Your task to perform on an android device: Is it going to rain this weekend? Image 0: 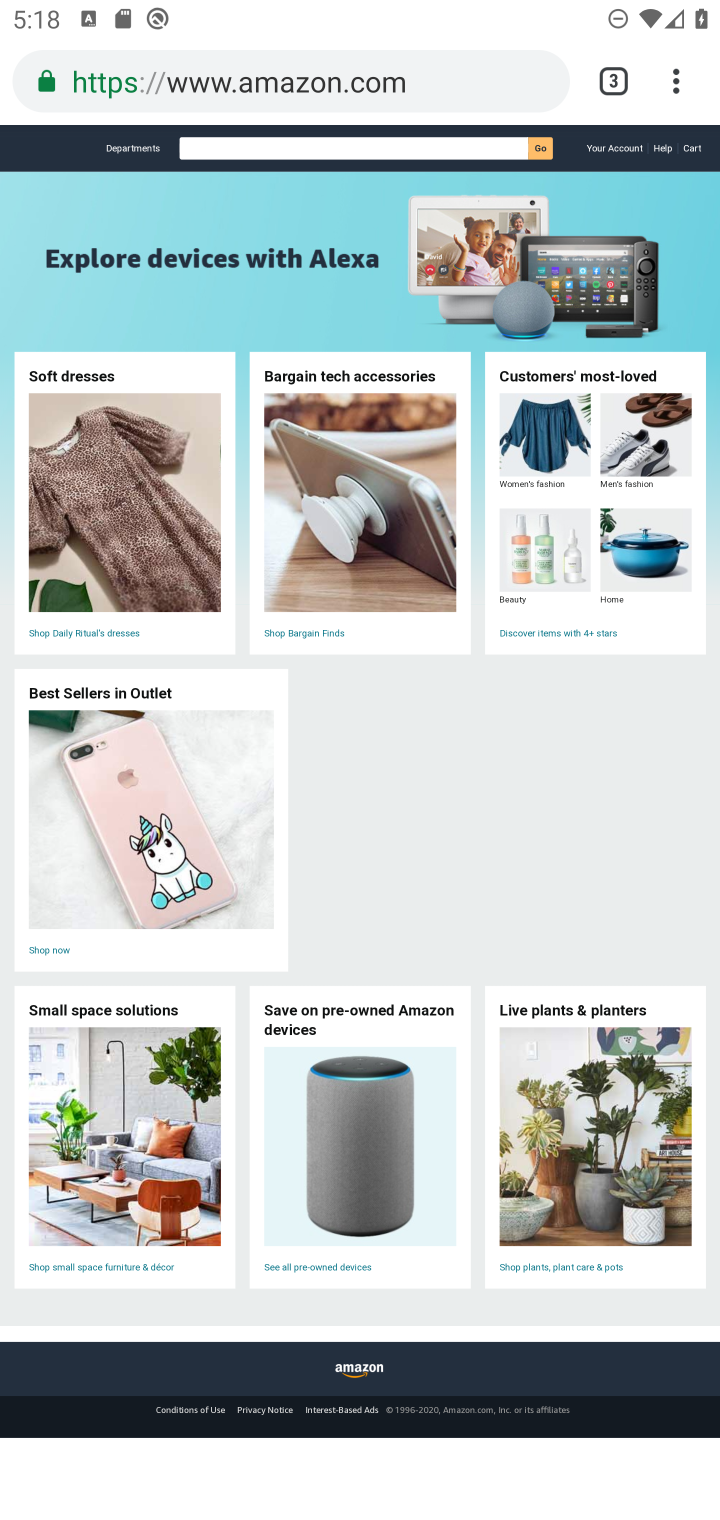
Step 0: press home button
Your task to perform on an android device: Is it going to rain this weekend? Image 1: 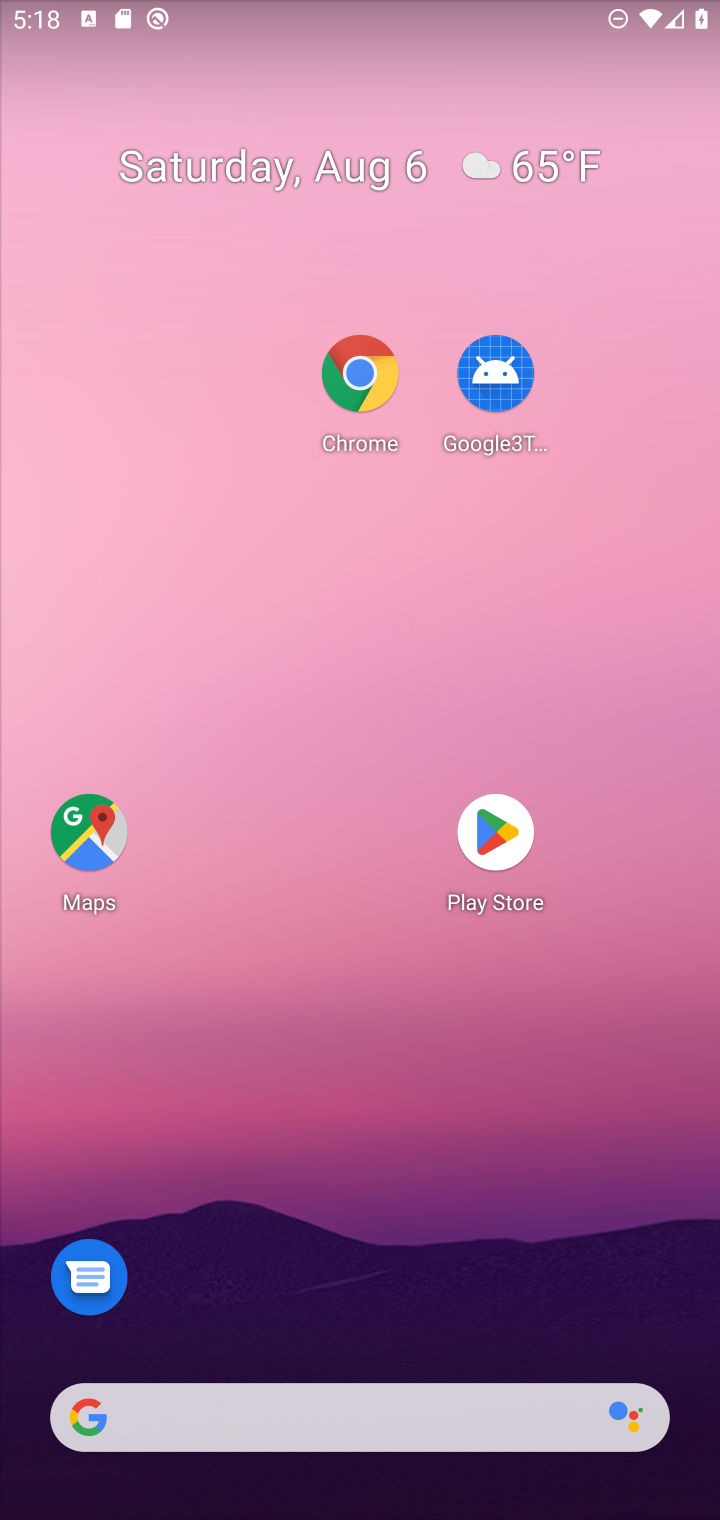
Step 1: drag from (503, 1425) to (685, 120)
Your task to perform on an android device: Is it going to rain this weekend? Image 2: 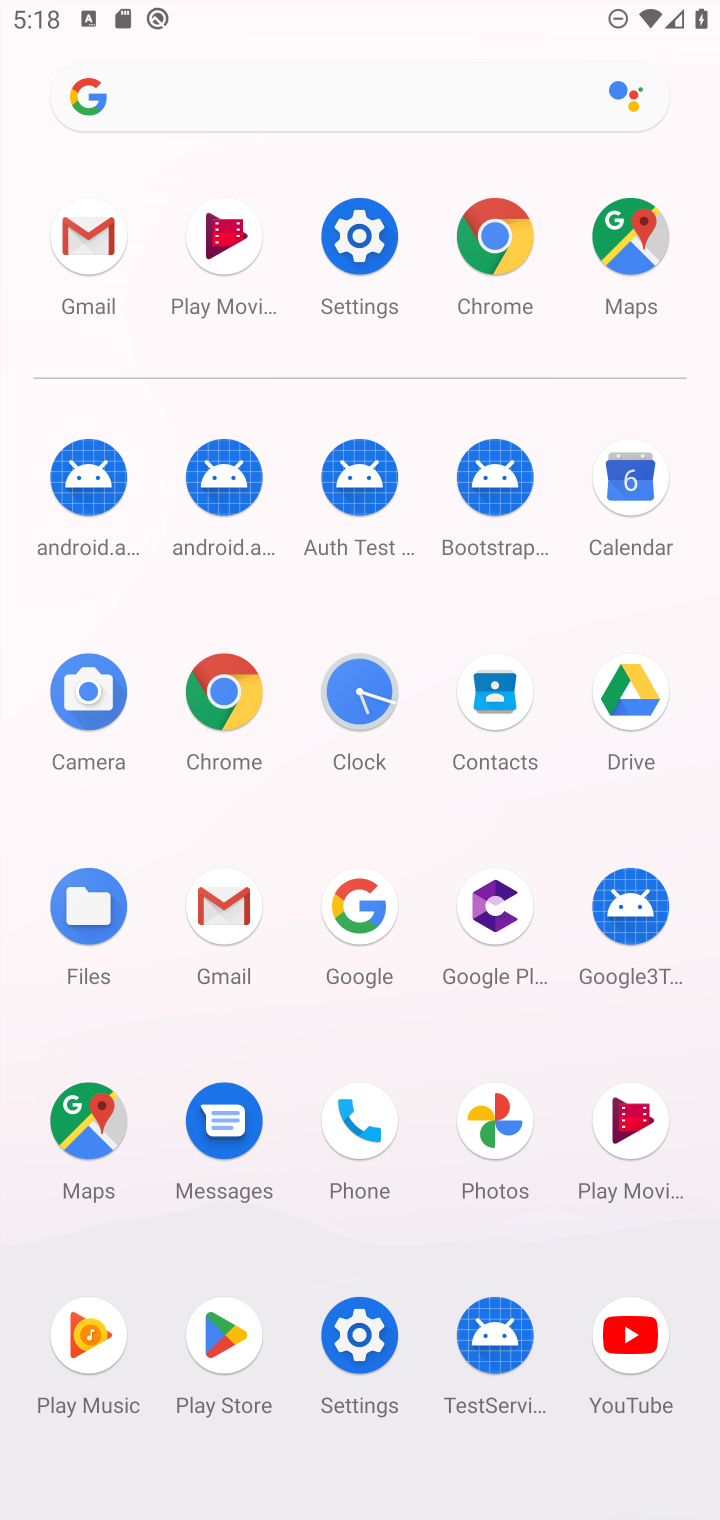
Step 2: click (215, 681)
Your task to perform on an android device: Is it going to rain this weekend? Image 3: 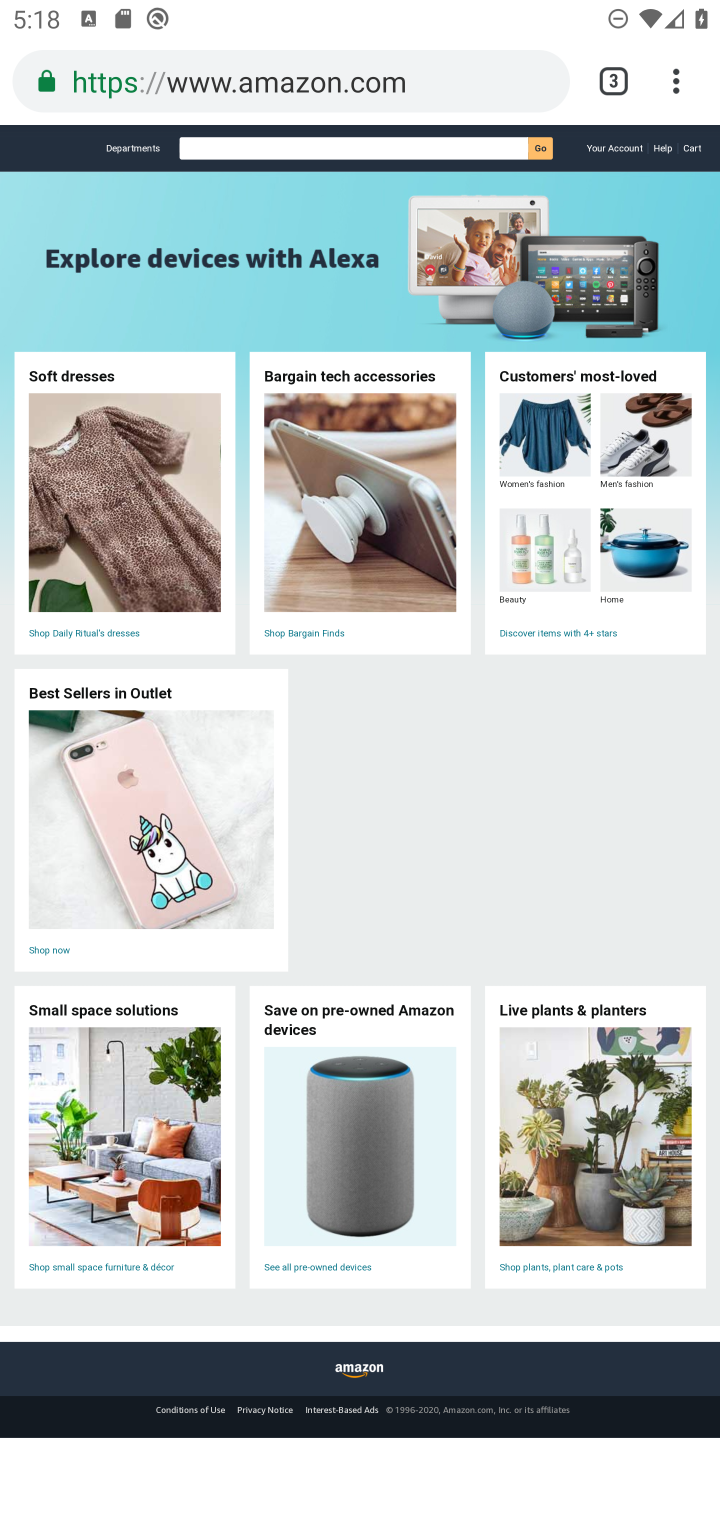
Step 3: click (395, 101)
Your task to perform on an android device: Is it going to rain this weekend? Image 4: 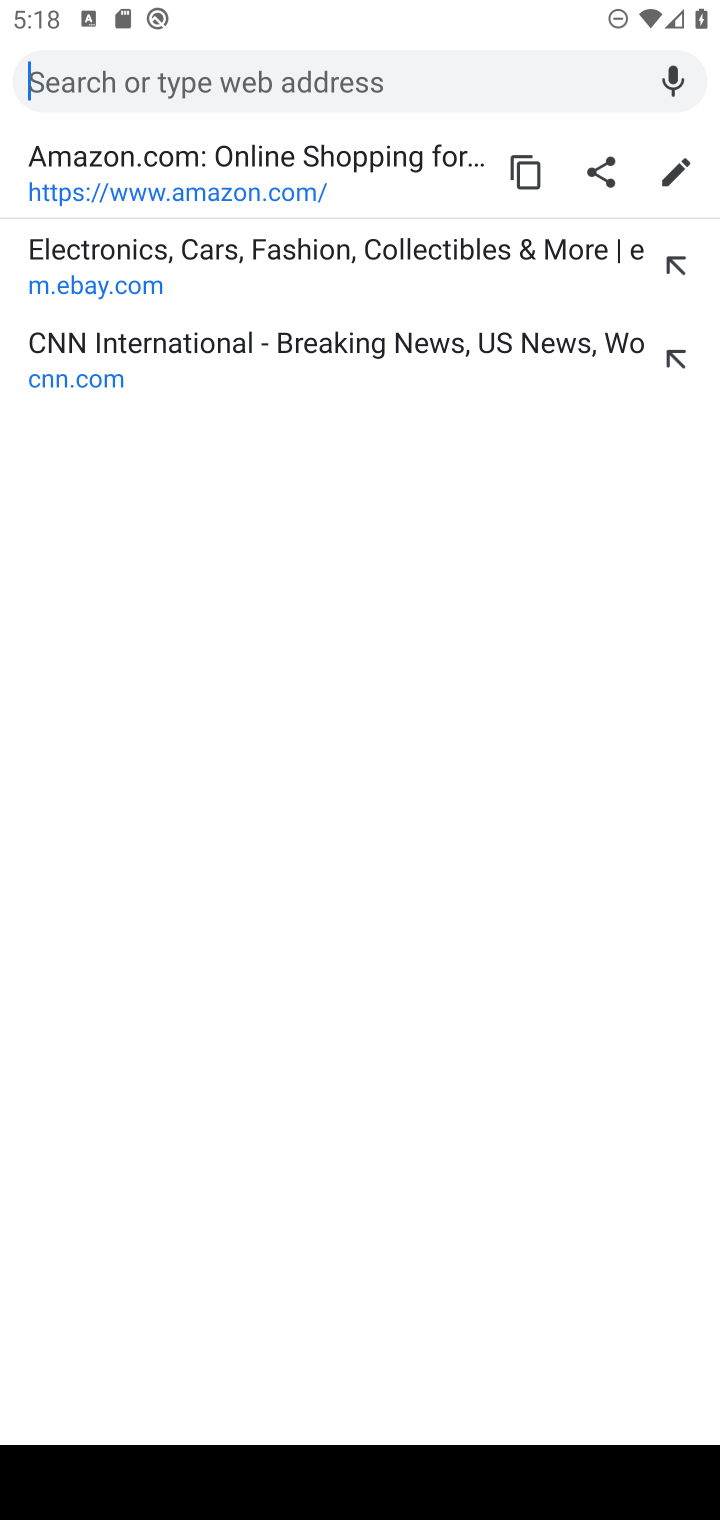
Step 4: type "is it going to rain this weeekend"
Your task to perform on an android device: Is it going to rain this weekend? Image 5: 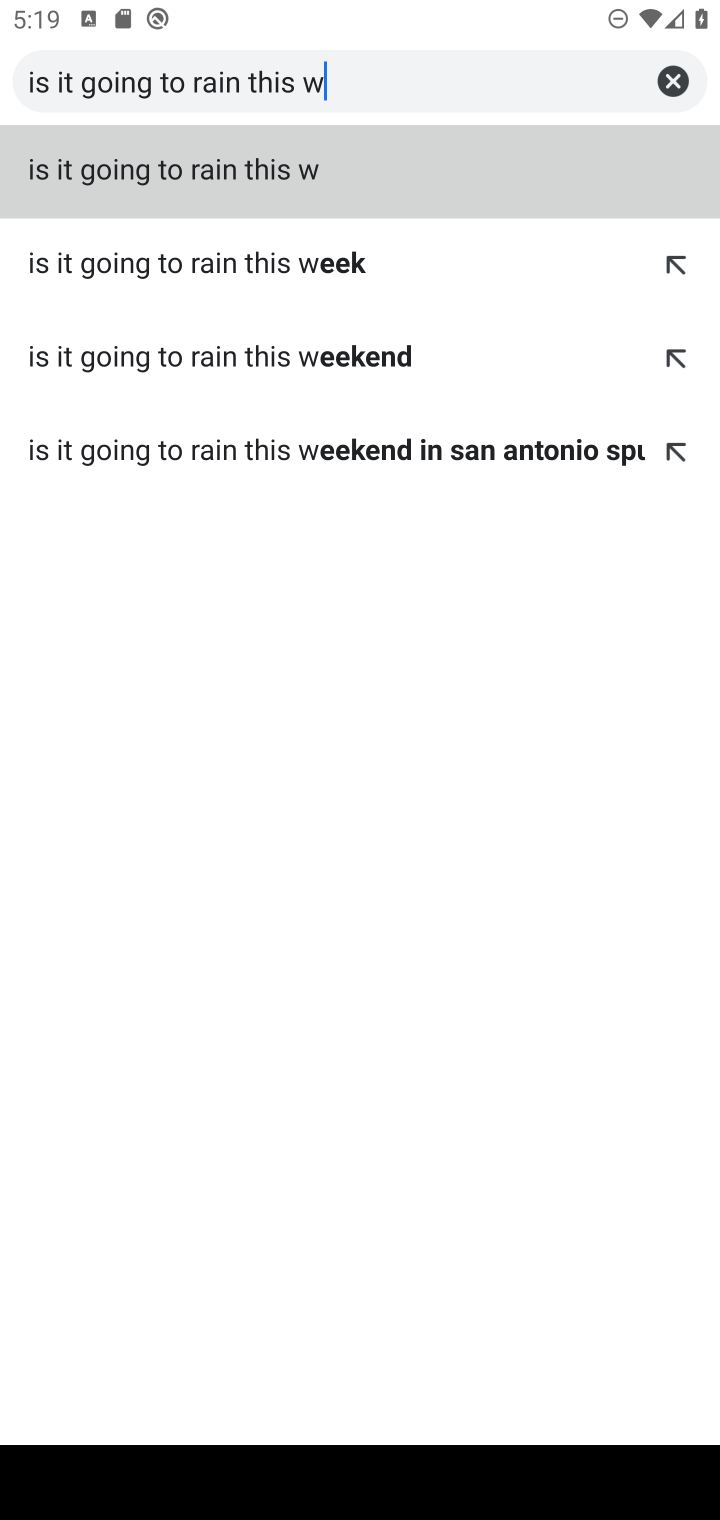
Step 5: click (317, 353)
Your task to perform on an android device: Is it going to rain this weekend? Image 6: 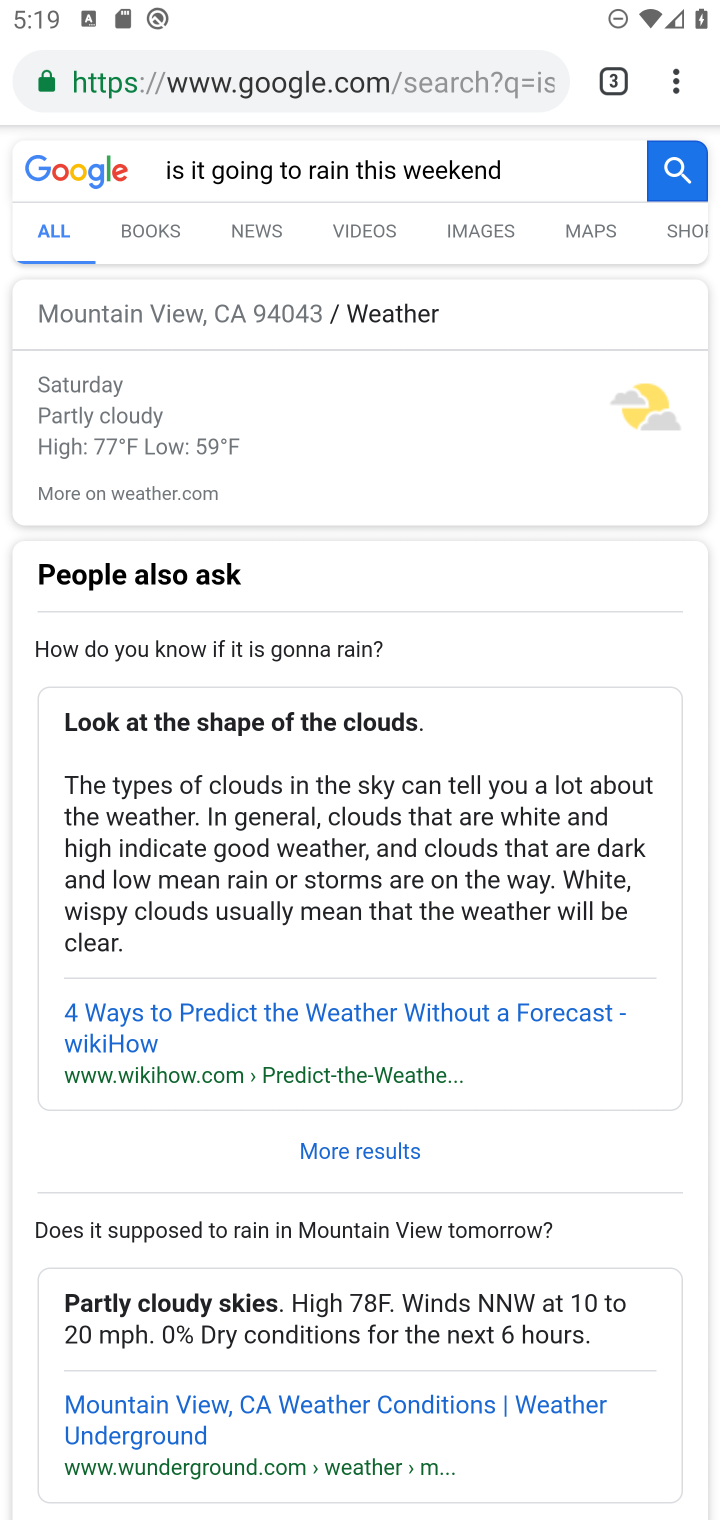
Step 6: task complete